Your task to perform on an android device: Open settings Image 0: 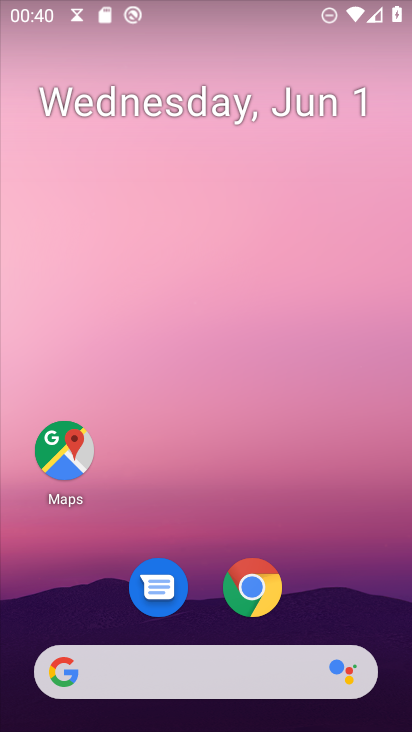
Step 0: drag from (339, 591) to (318, 63)
Your task to perform on an android device: Open settings Image 1: 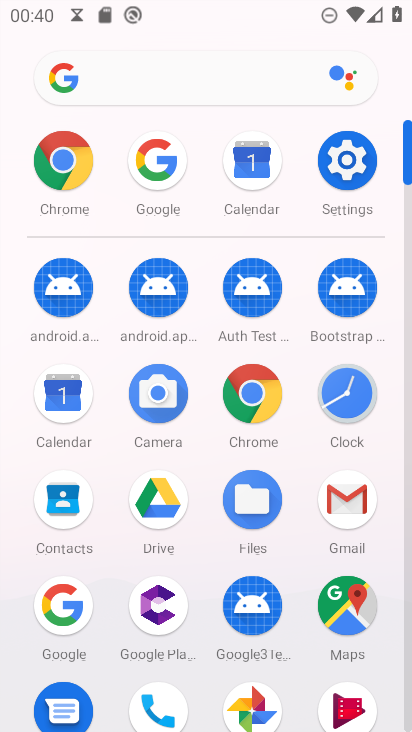
Step 1: click (338, 168)
Your task to perform on an android device: Open settings Image 2: 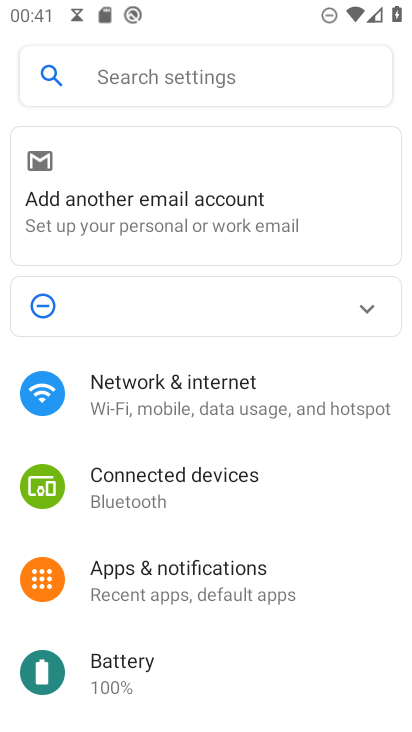
Step 2: task complete